Your task to perform on an android device: Search for vegetarian restaurants on Maps Image 0: 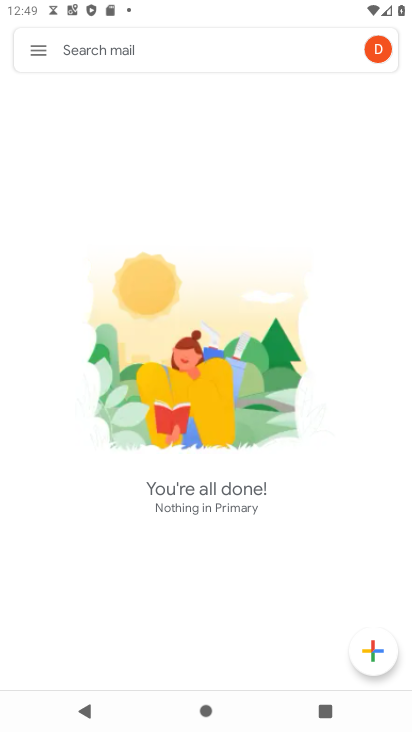
Step 0: press home button
Your task to perform on an android device: Search for vegetarian restaurants on Maps Image 1: 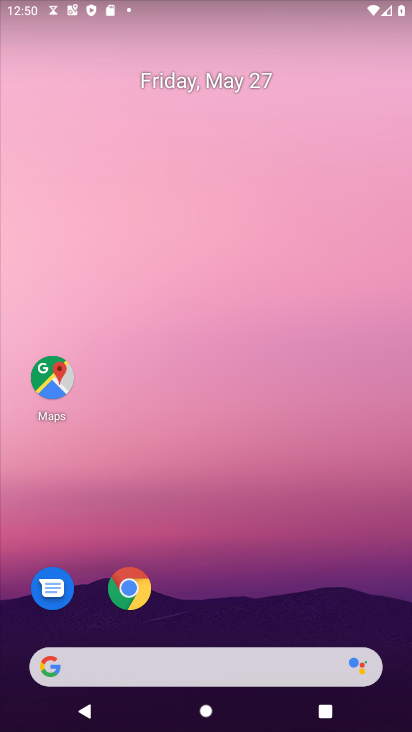
Step 1: click (51, 372)
Your task to perform on an android device: Search for vegetarian restaurants on Maps Image 2: 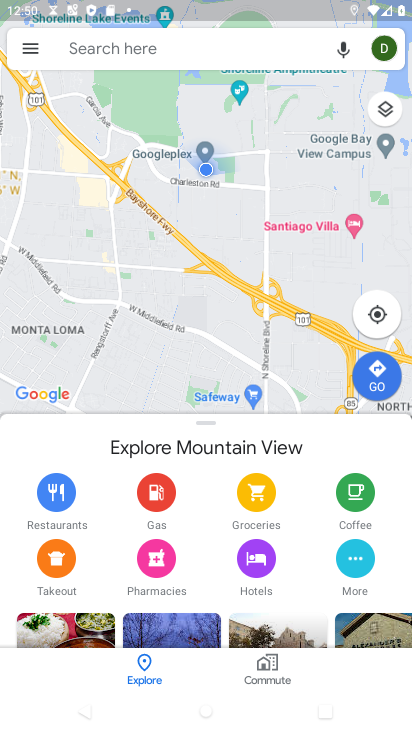
Step 2: click (96, 42)
Your task to perform on an android device: Search for vegetarian restaurants on Maps Image 3: 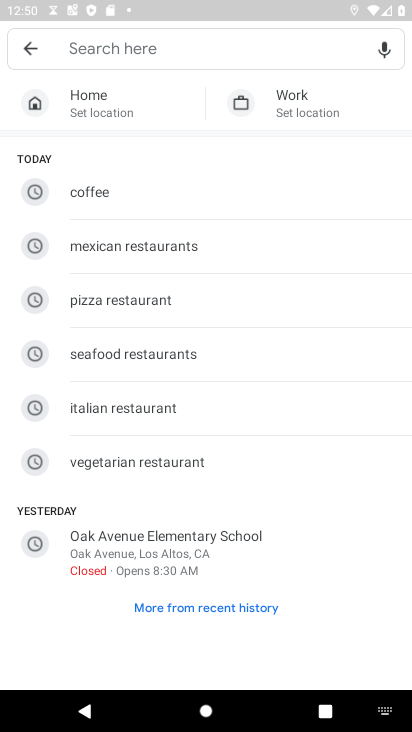
Step 3: click (133, 452)
Your task to perform on an android device: Search for vegetarian restaurants on Maps Image 4: 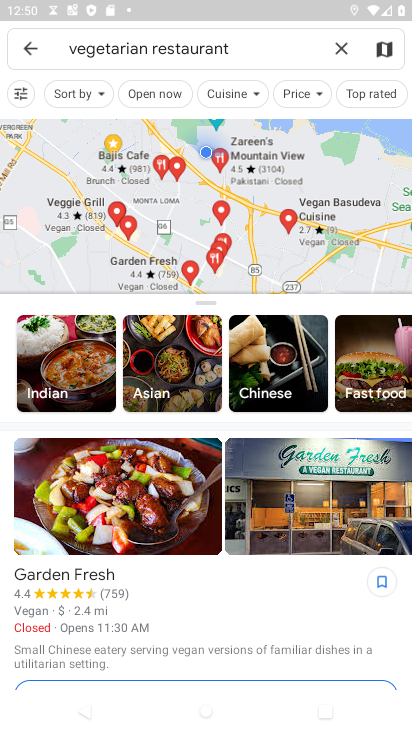
Step 4: task complete